Your task to perform on an android device: set the stopwatch Image 0: 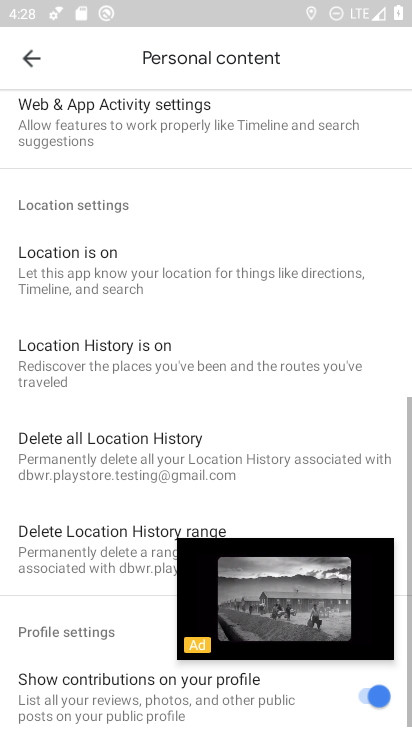
Step 0: click (302, 613)
Your task to perform on an android device: set the stopwatch Image 1: 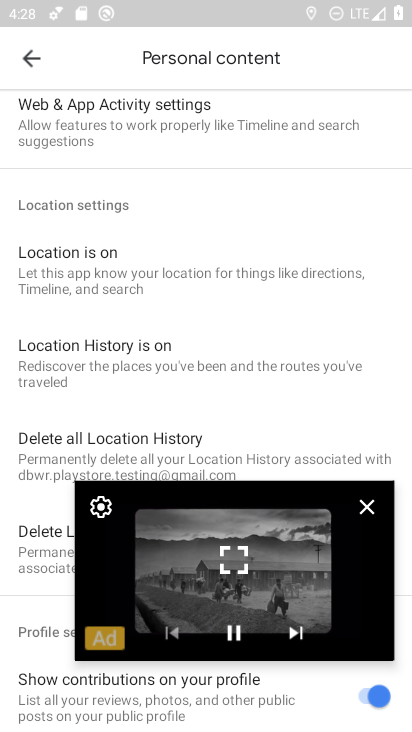
Step 1: click (245, 560)
Your task to perform on an android device: set the stopwatch Image 2: 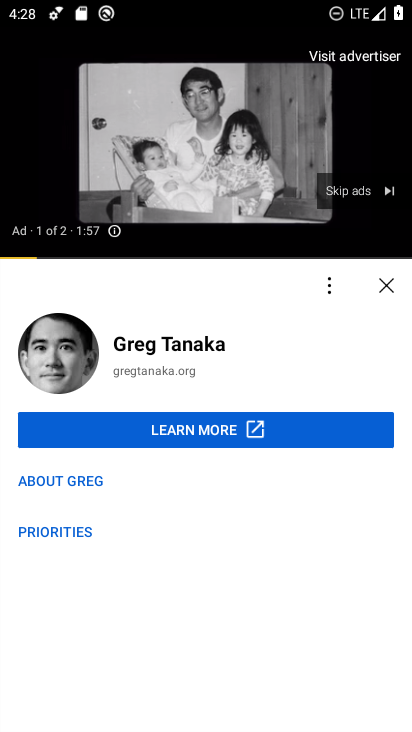
Step 2: click (189, 126)
Your task to perform on an android device: set the stopwatch Image 3: 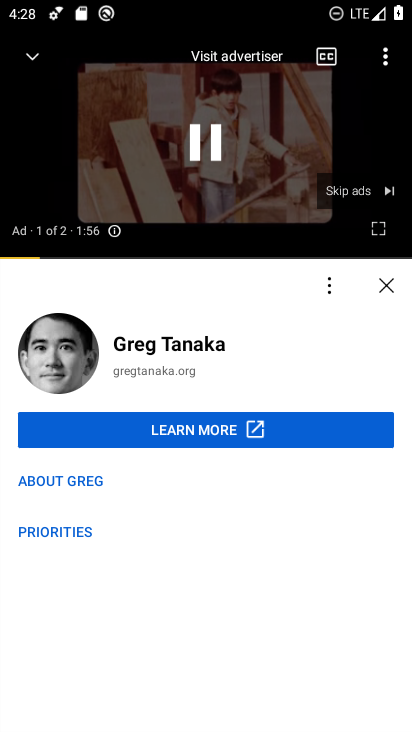
Step 3: click (199, 133)
Your task to perform on an android device: set the stopwatch Image 4: 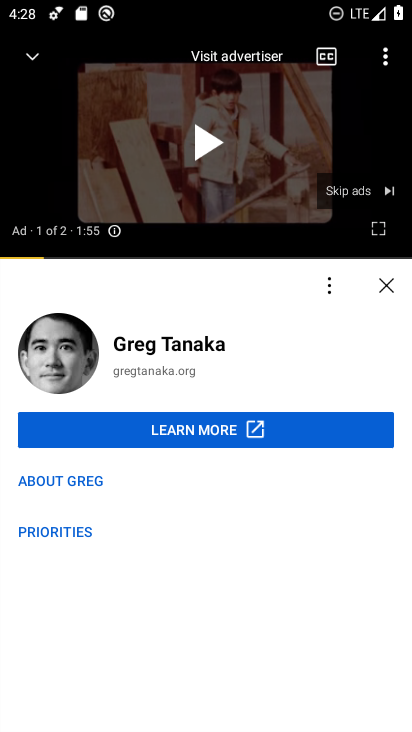
Step 4: press home button
Your task to perform on an android device: set the stopwatch Image 5: 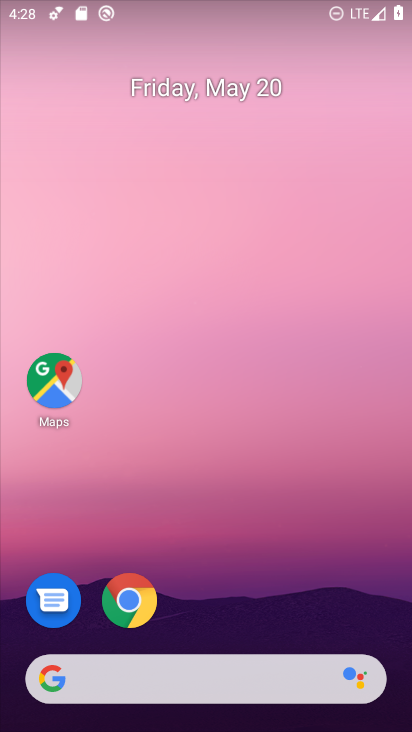
Step 5: drag from (214, 610) to (310, 45)
Your task to perform on an android device: set the stopwatch Image 6: 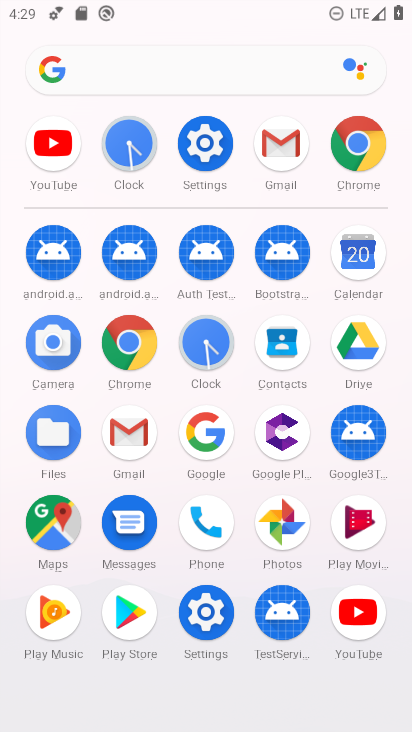
Step 6: click (209, 356)
Your task to perform on an android device: set the stopwatch Image 7: 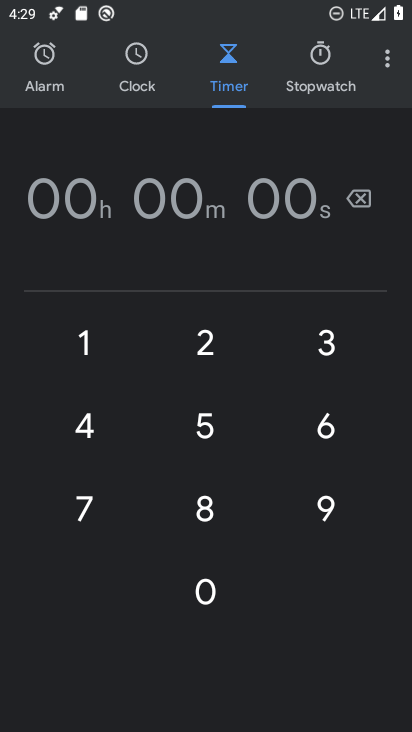
Step 7: click (303, 45)
Your task to perform on an android device: set the stopwatch Image 8: 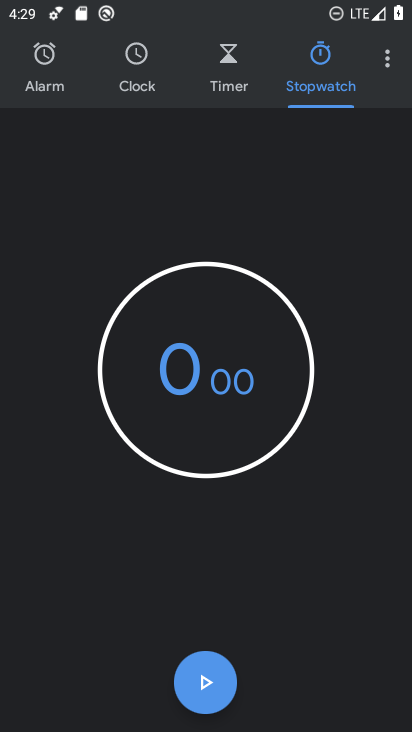
Step 8: click (214, 381)
Your task to perform on an android device: set the stopwatch Image 9: 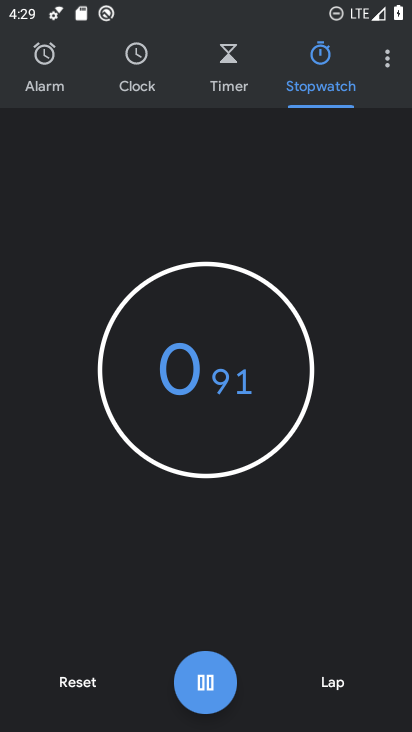
Step 9: click (207, 382)
Your task to perform on an android device: set the stopwatch Image 10: 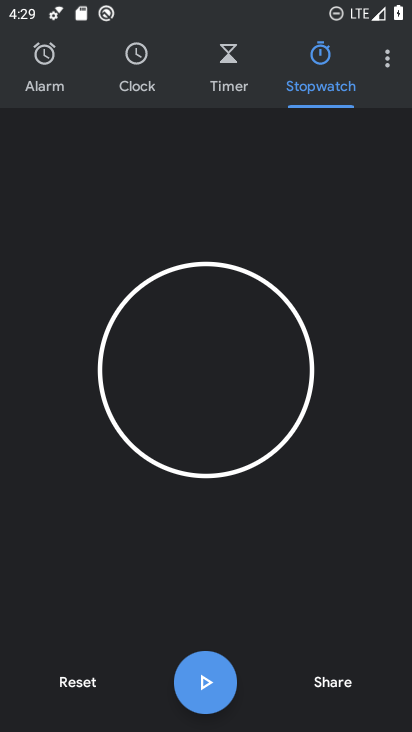
Step 10: task complete